Your task to perform on an android device: open app "Viber Messenger" Image 0: 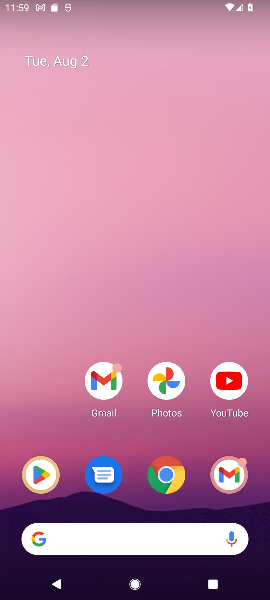
Step 0: click (43, 476)
Your task to perform on an android device: open app "Viber Messenger" Image 1: 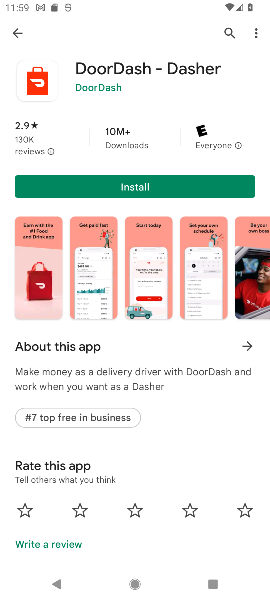
Step 1: click (229, 27)
Your task to perform on an android device: open app "Viber Messenger" Image 2: 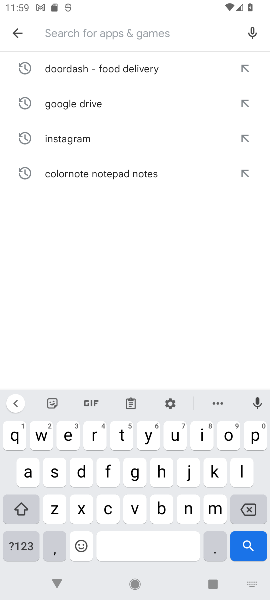
Step 2: type "Viber Messenger"
Your task to perform on an android device: open app "Viber Messenger" Image 3: 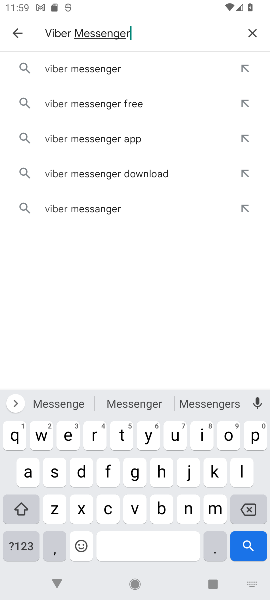
Step 3: type ""
Your task to perform on an android device: open app "Viber Messenger" Image 4: 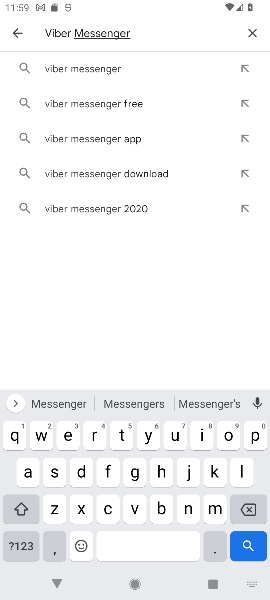
Step 4: click (117, 68)
Your task to perform on an android device: open app "Viber Messenger" Image 5: 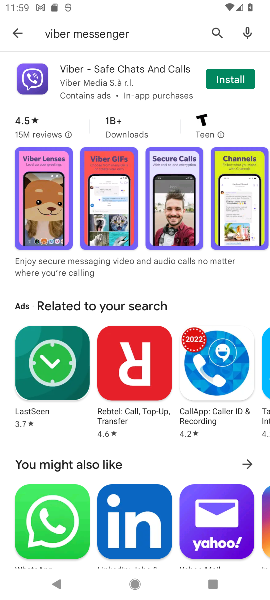
Step 5: task complete